Your task to perform on an android device: add a contact Image 0: 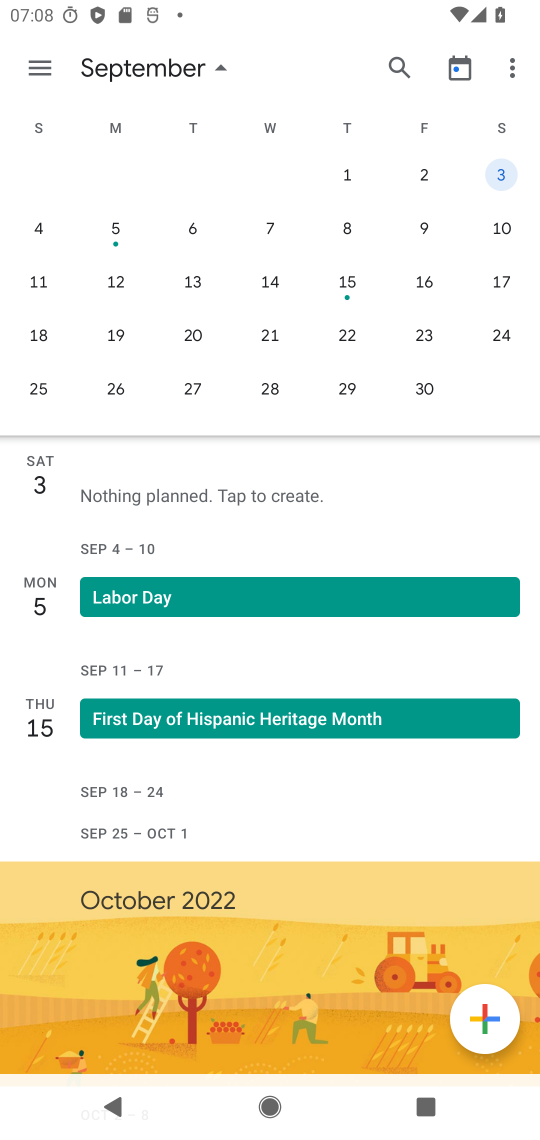
Step 0: press home button
Your task to perform on an android device: add a contact Image 1: 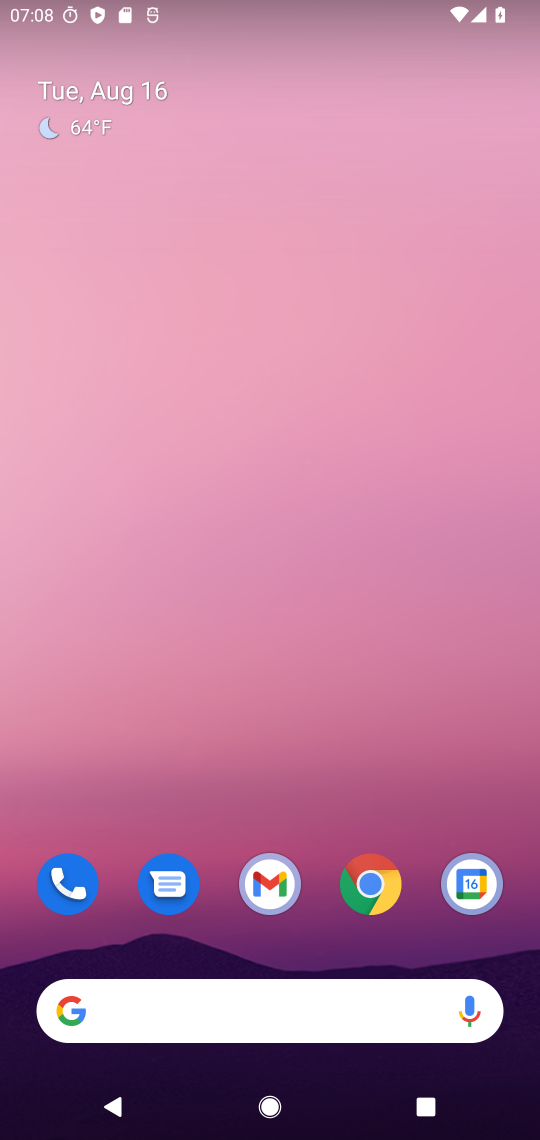
Step 1: press home button
Your task to perform on an android device: add a contact Image 2: 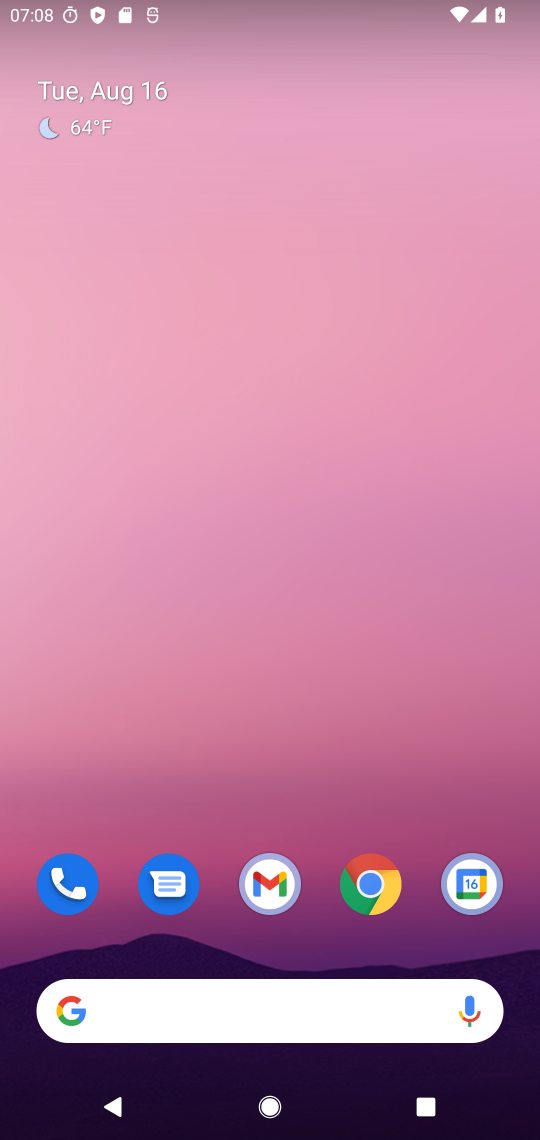
Step 2: drag from (321, 787) to (524, 447)
Your task to perform on an android device: add a contact Image 3: 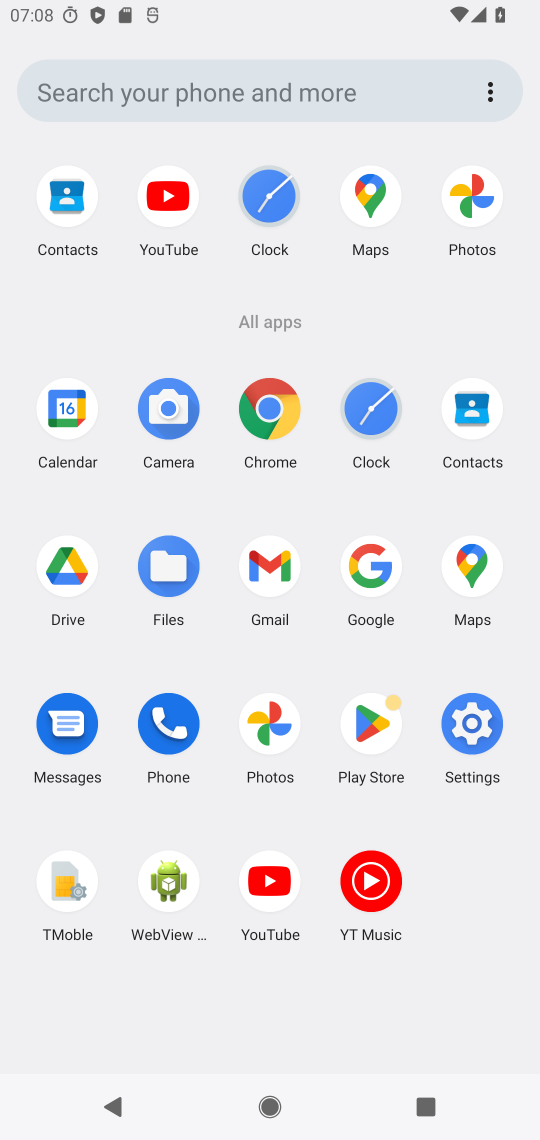
Step 3: click (467, 409)
Your task to perform on an android device: add a contact Image 4: 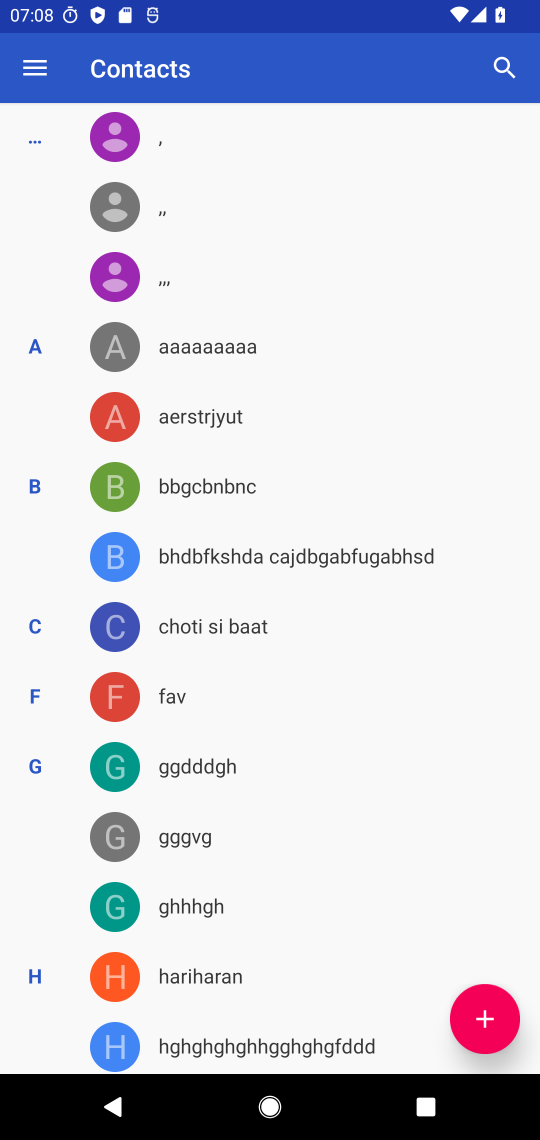
Step 4: click (470, 1007)
Your task to perform on an android device: add a contact Image 5: 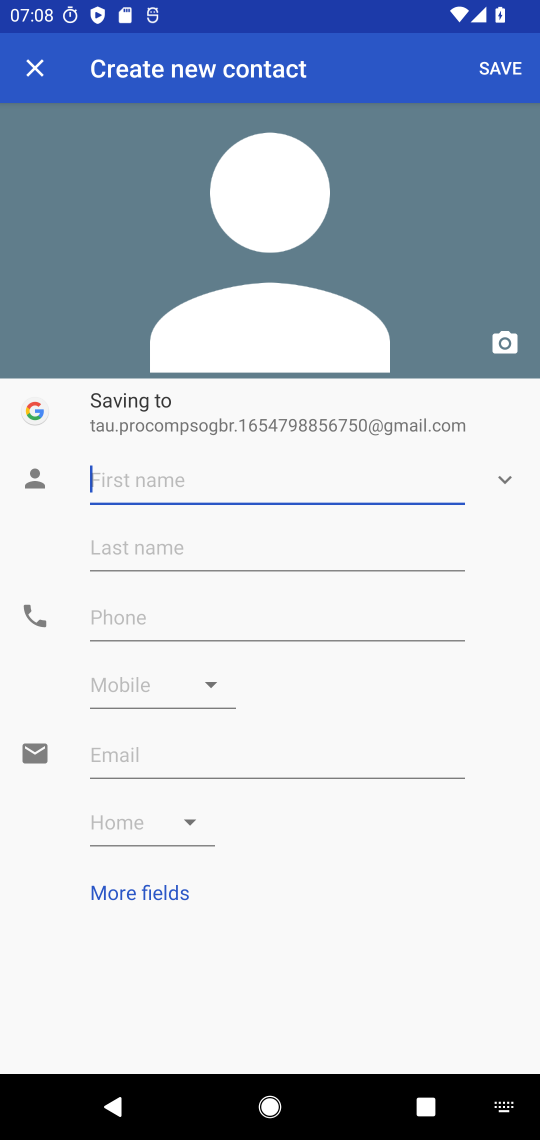
Step 5: type "fffefeeeee"
Your task to perform on an android device: add a contact Image 6: 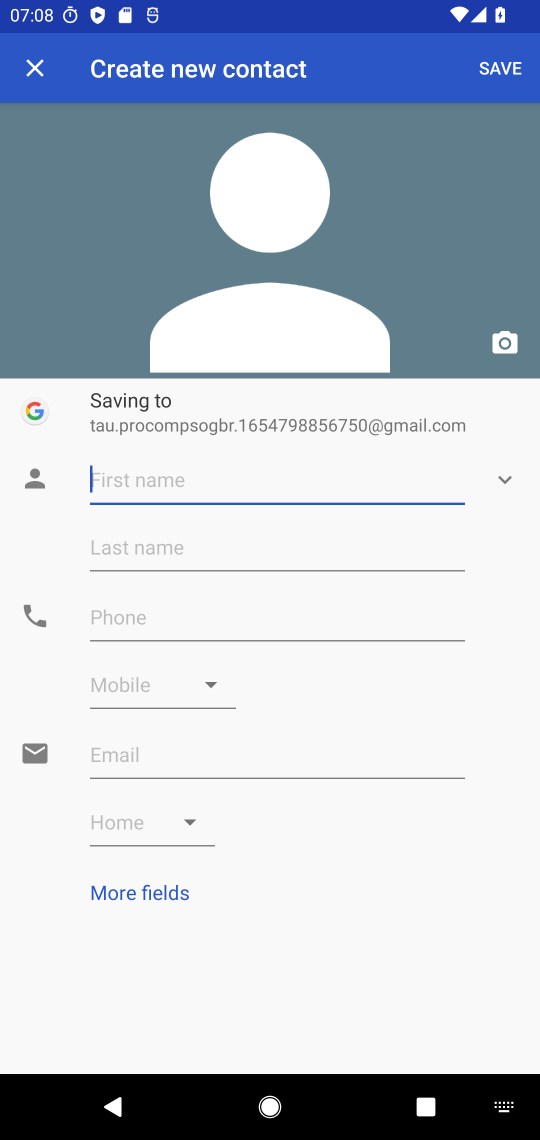
Step 6: click (155, 469)
Your task to perform on an android device: add a contact Image 7: 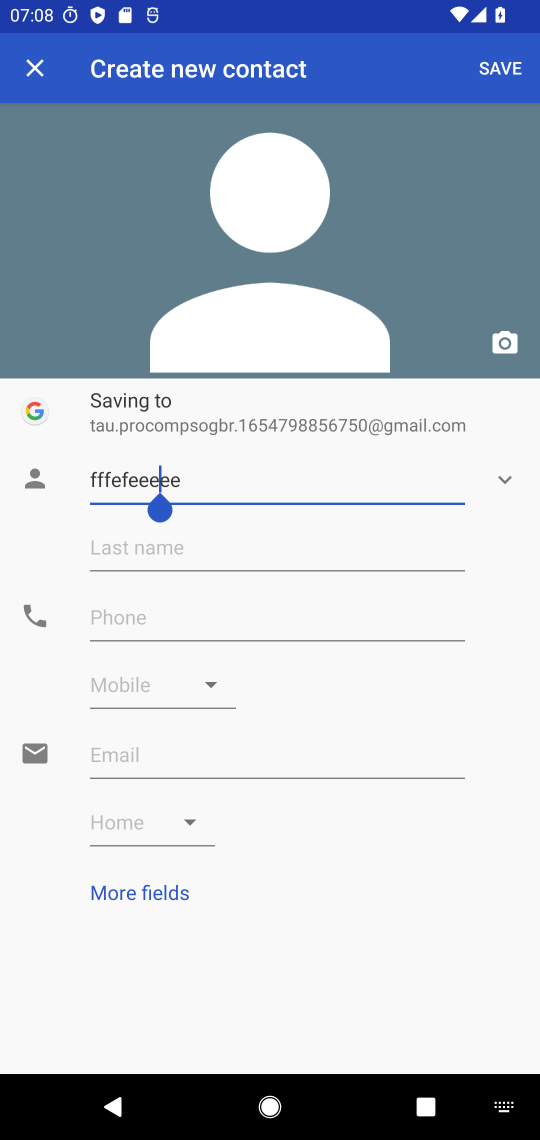
Step 7: click (203, 611)
Your task to perform on an android device: add a contact Image 8: 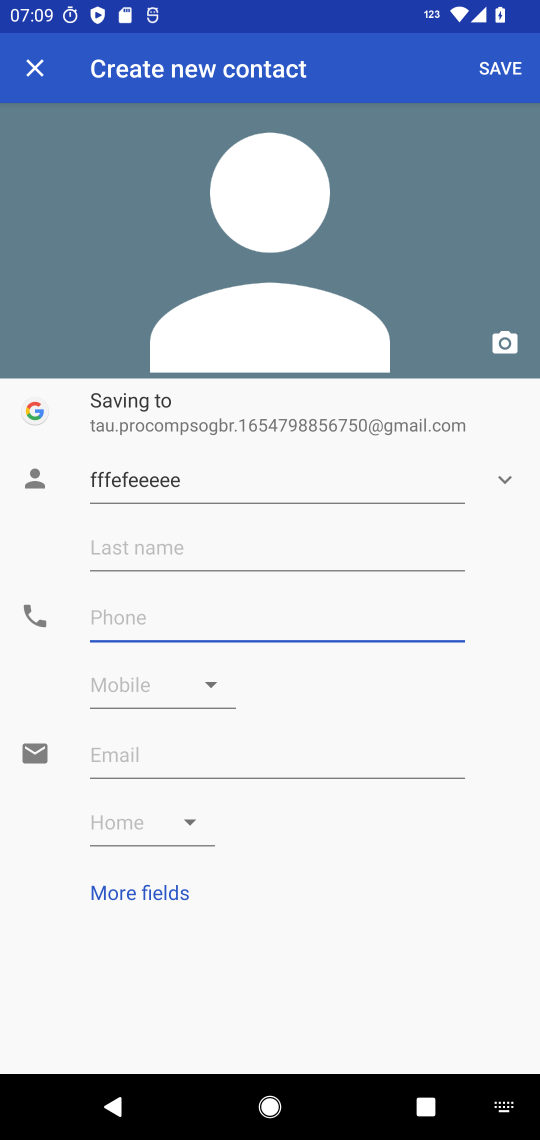
Step 8: type "24455555353553"
Your task to perform on an android device: add a contact Image 9: 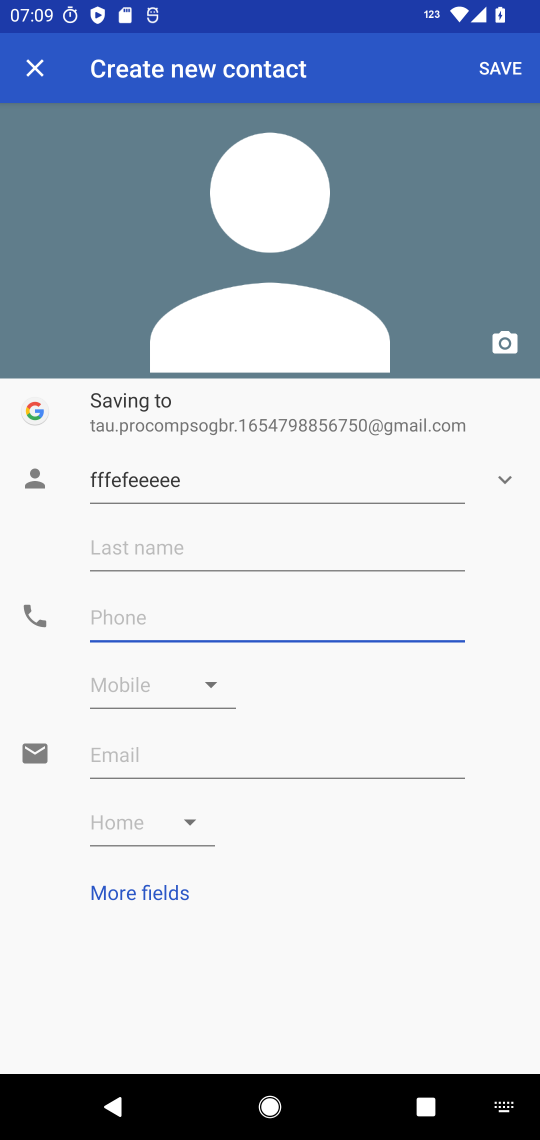
Step 9: click (153, 610)
Your task to perform on an android device: add a contact Image 10: 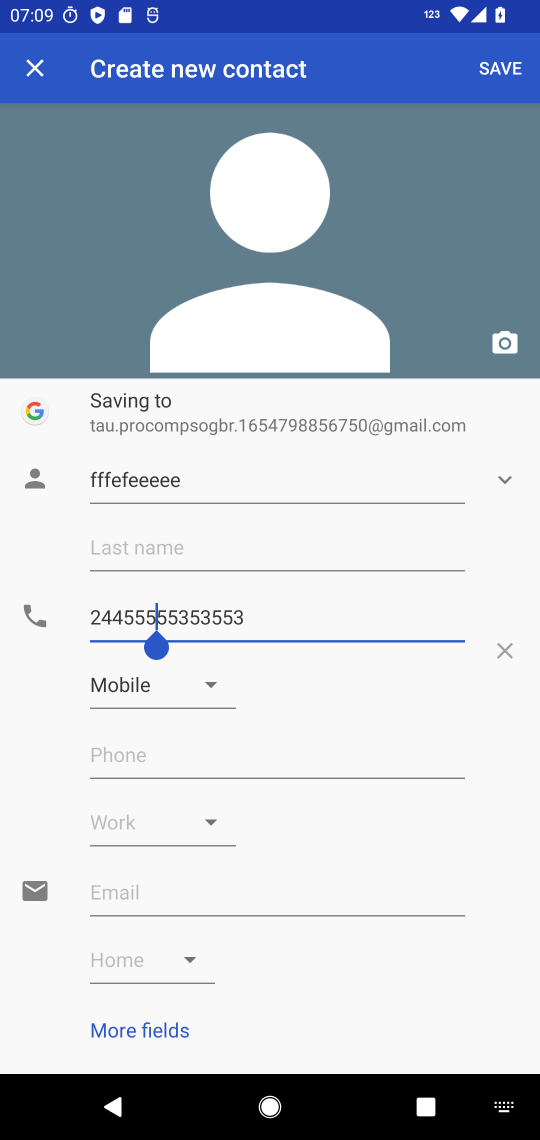
Step 10: click (502, 71)
Your task to perform on an android device: add a contact Image 11: 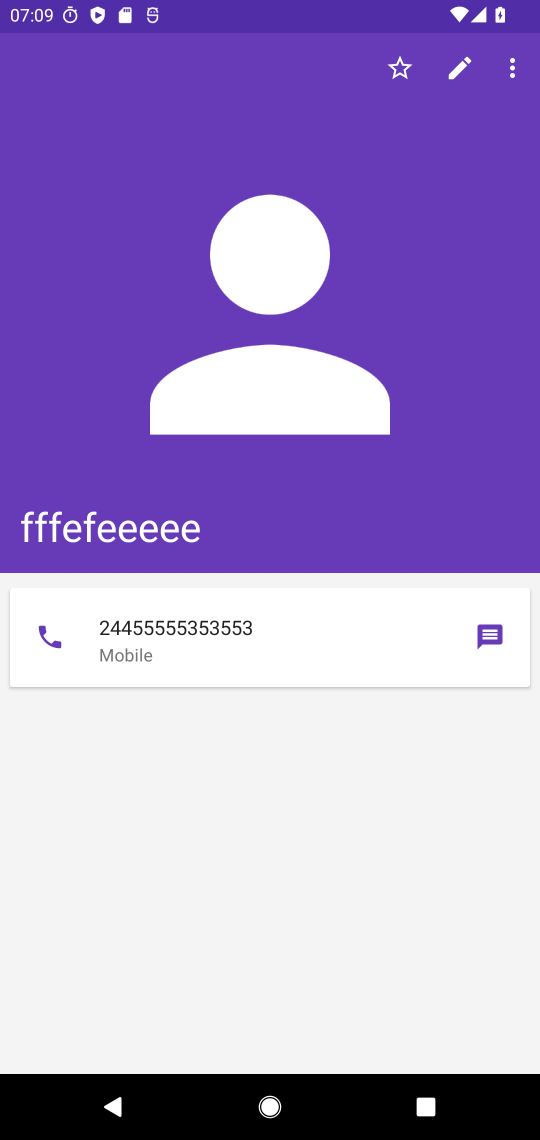
Step 11: task complete